Your task to perform on an android device: change keyboard looks Image 0: 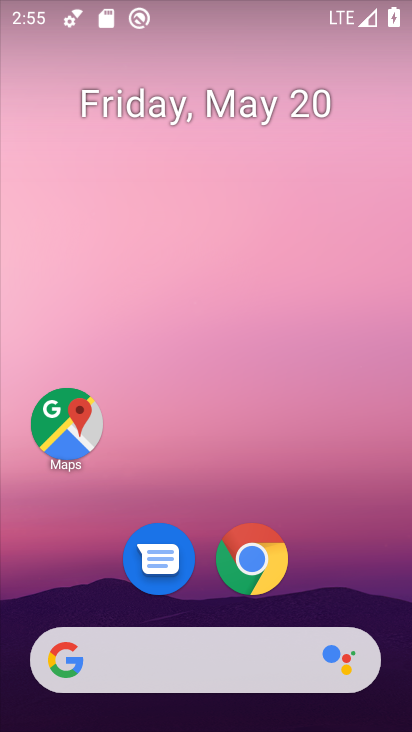
Step 0: drag from (235, 464) to (249, 22)
Your task to perform on an android device: change keyboard looks Image 1: 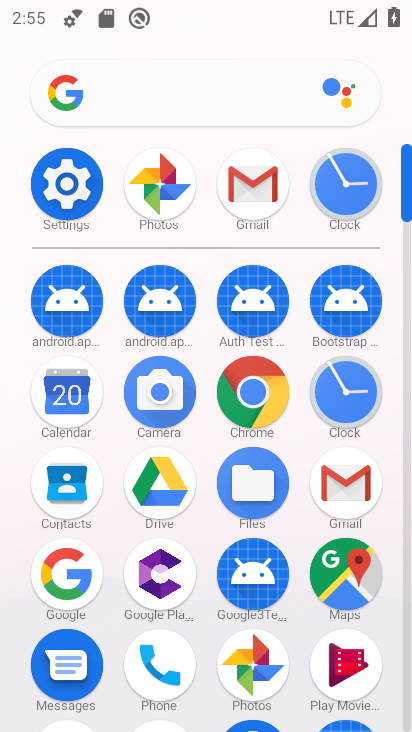
Step 1: click (69, 184)
Your task to perform on an android device: change keyboard looks Image 2: 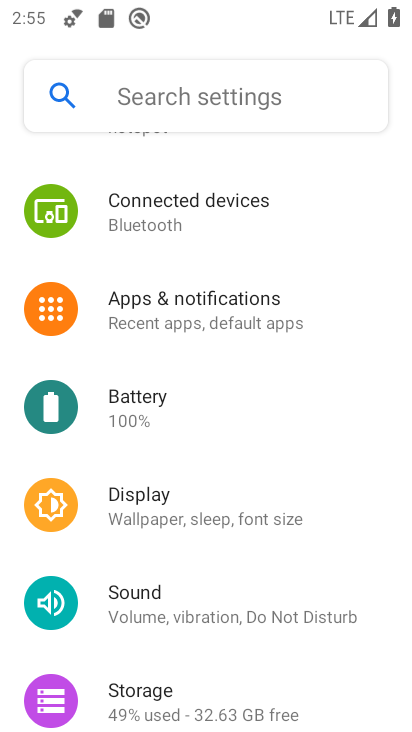
Step 2: drag from (221, 586) to (212, 162)
Your task to perform on an android device: change keyboard looks Image 3: 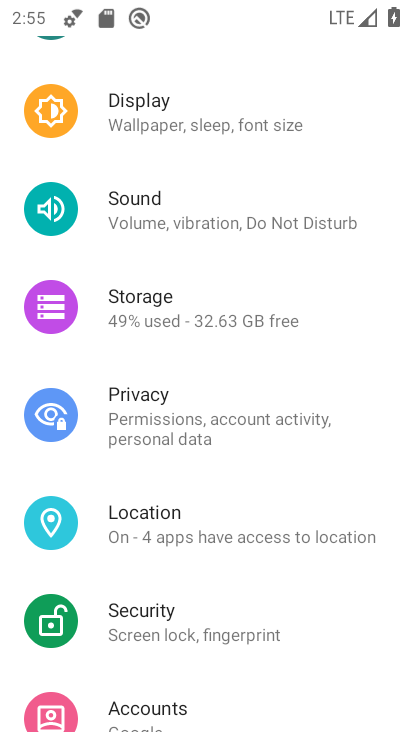
Step 3: drag from (231, 591) to (223, 94)
Your task to perform on an android device: change keyboard looks Image 4: 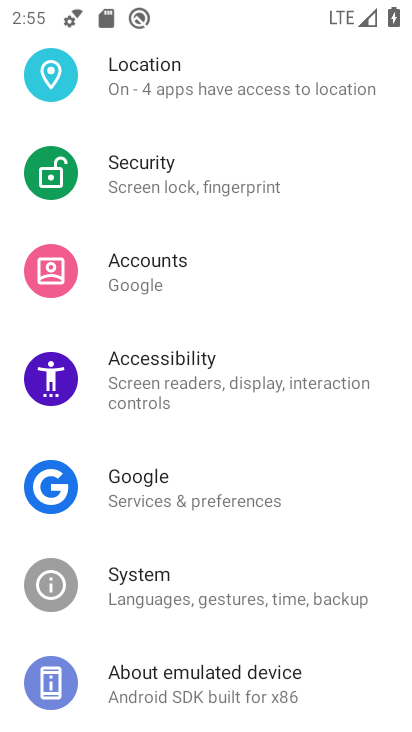
Step 4: click (235, 590)
Your task to perform on an android device: change keyboard looks Image 5: 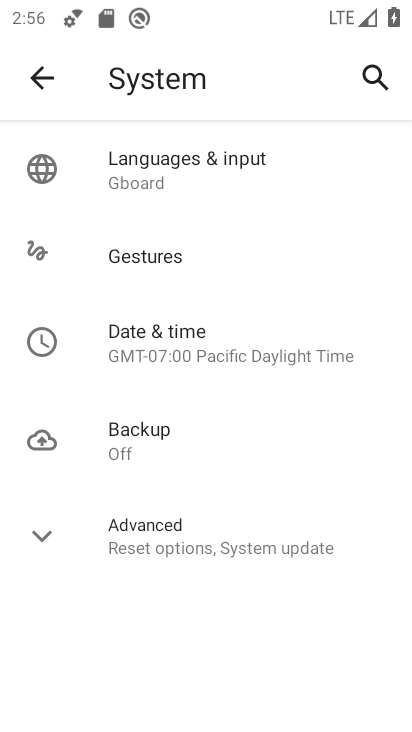
Step 5: click (199, 178)
Your task to perform on an android device: change keyboard looks Image 6: 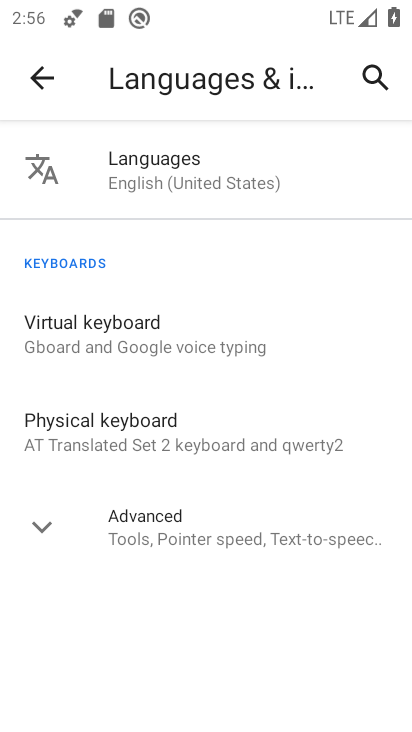
Step 6: click (131, 328)
Your task to perform on an android device: change keyboard looks Image 7: 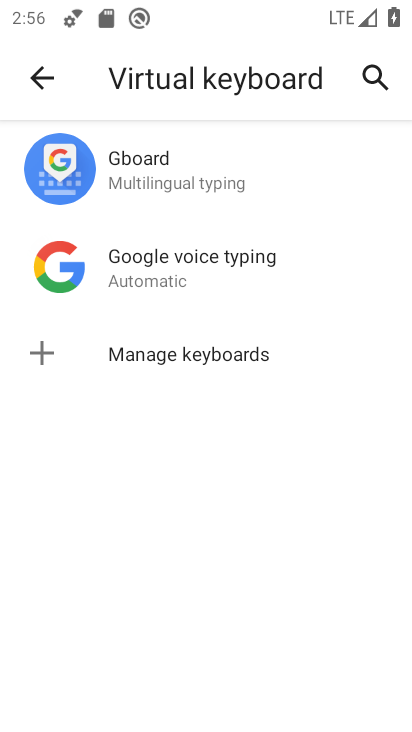
Step 7: click (163, 169)
Your task to perform on an android device: change keyboard looks Image 8: 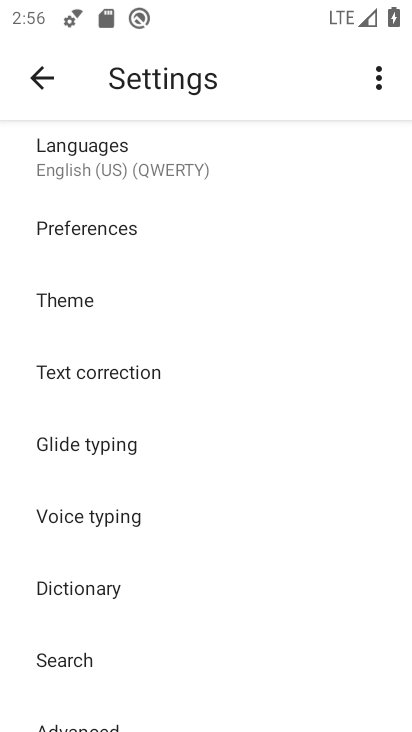
Step 8: click (102, 304)
Your task to perform on an android device: change keyboard looks Image 9: 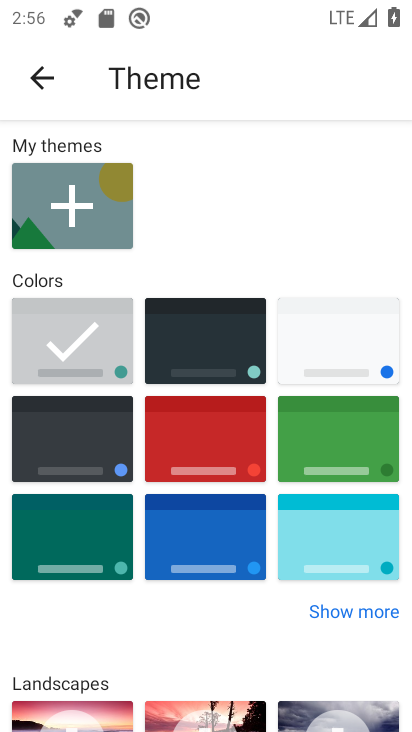
Step 9: click (161, 340)
Your task to perform on an android device: change keyboard looks Image 10: 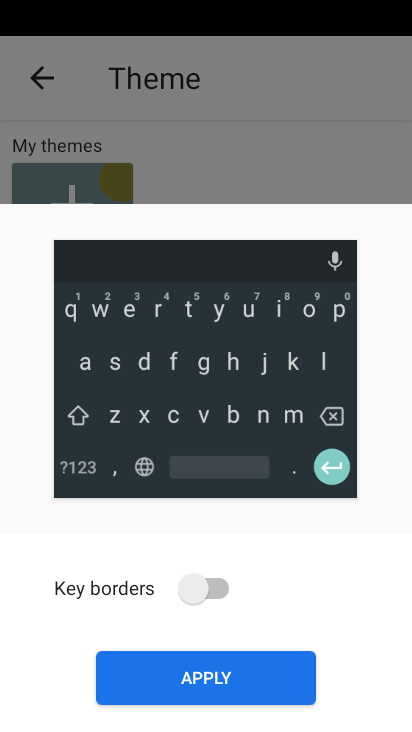
Step 10: click (210, 584)
Your task to perform on an android device: change keyboard looks Image 11: 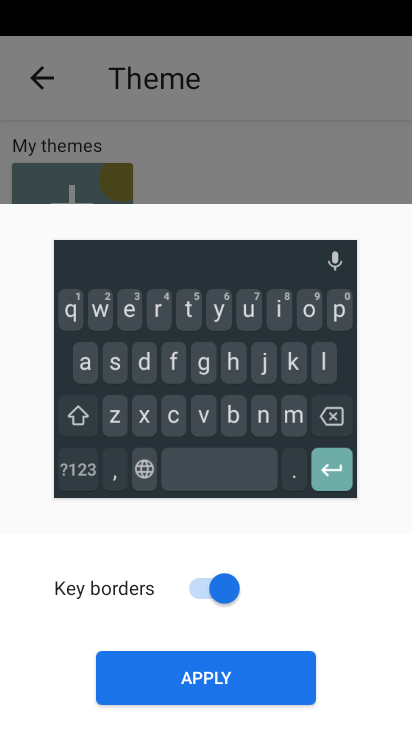
Step 11: click (214, 682)
Your task to perform on an android device: change keyboard looks Image 12: 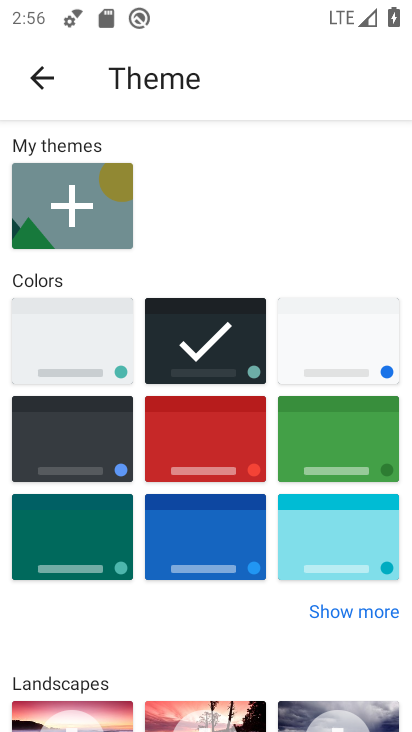
Step 12: task complete